Your task to perform on an android device: change timer sound Image 0: 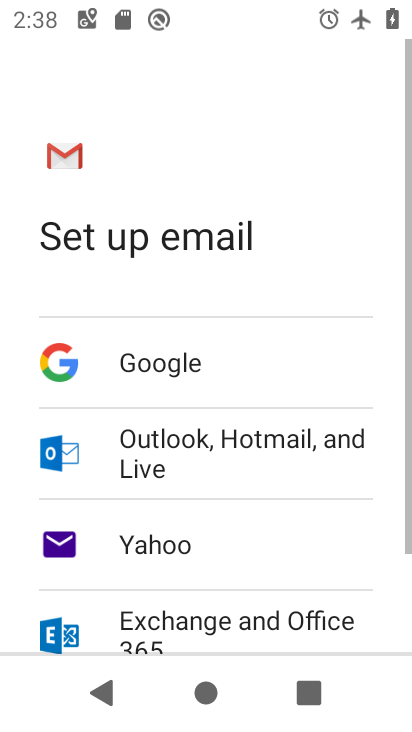
Step 0: press home button
Your task to perform on an android device: change timer sound Image 1: 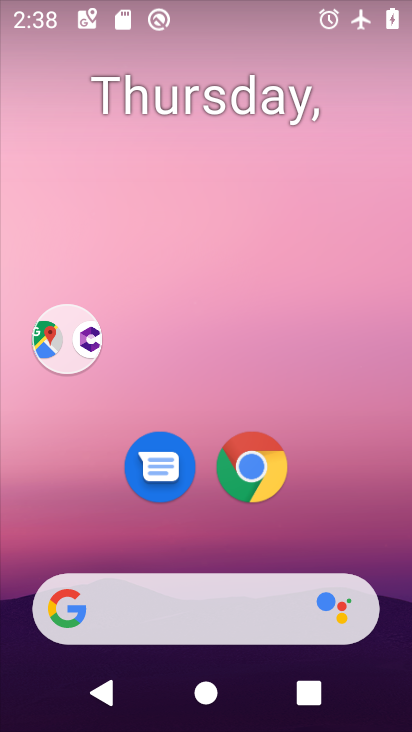
Step 1: drag from (217, 554) to (265, 0)
Your task to perform on an android device: change timer sound Image 2: 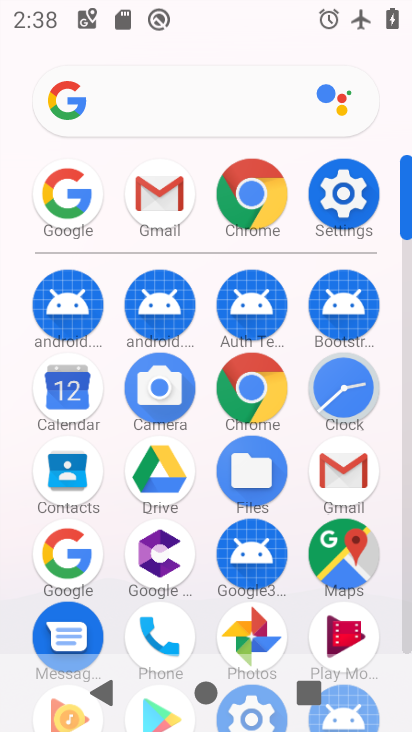
Step 2: click (339, 395)
Your task to perform on an android device: change timer sound Image 3: 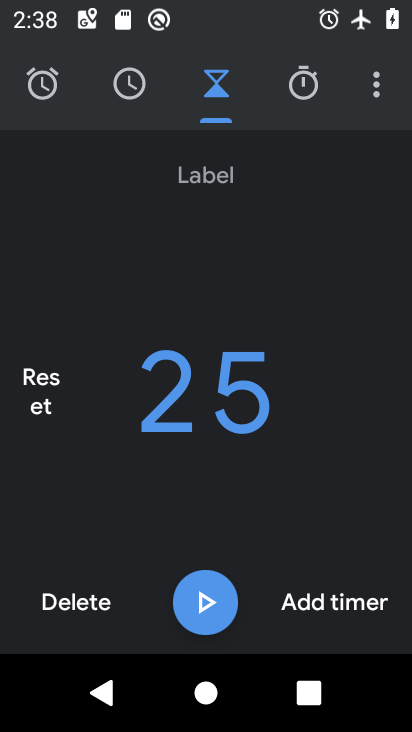
Step 3: click (374, 97)
Your task to perform on an android device: change timer sound Image 4: 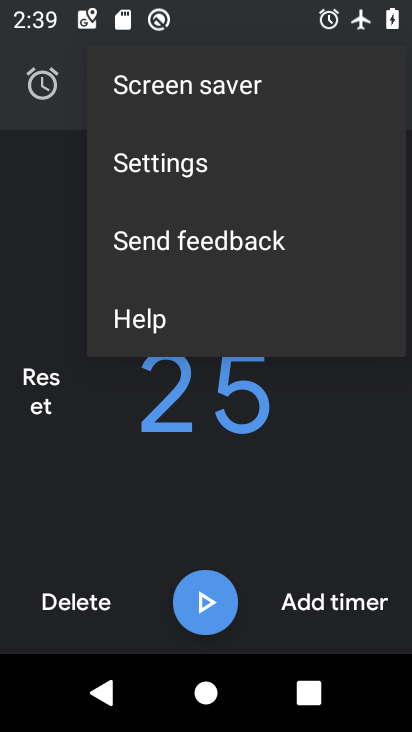
Step 4: click (121, 169)
Your task to perform on an android device: change timer sound Image 5: 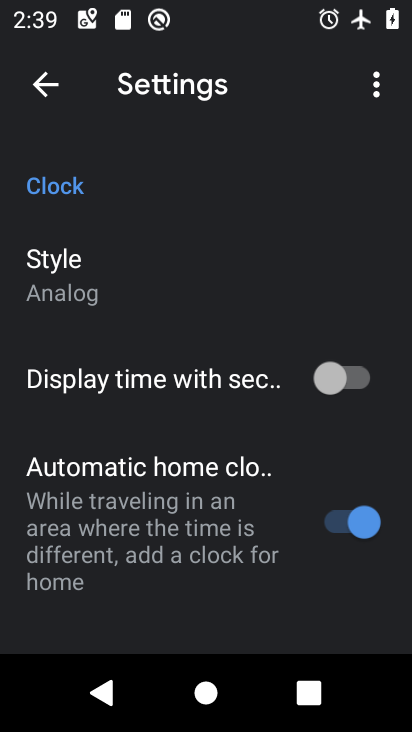
Step 5: drag from (144, 476) to (113, 84)
Your task to perform on an android device: change timer sound Image 6: 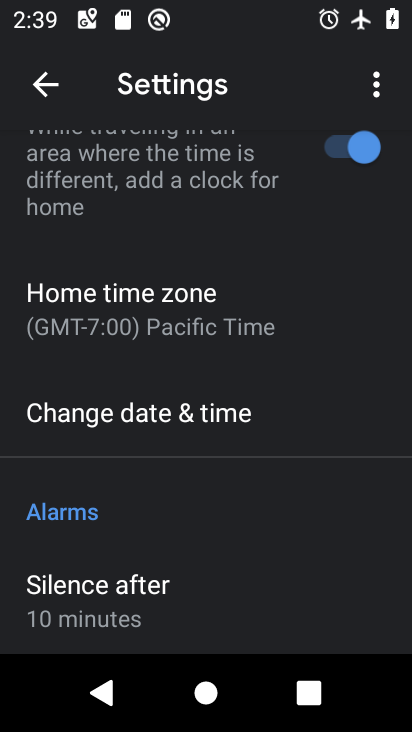
Step 6: drag from (124, 529) to (81, 89)
Your task to perform on an android device: change timer sound Image 7: 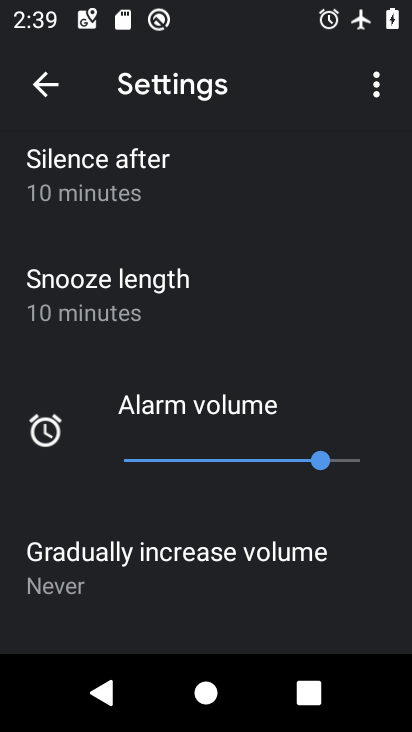
Step 7: drag from (176, 429) to (135, 28)
Your task to perform on an android device: change timer sound Image 8: 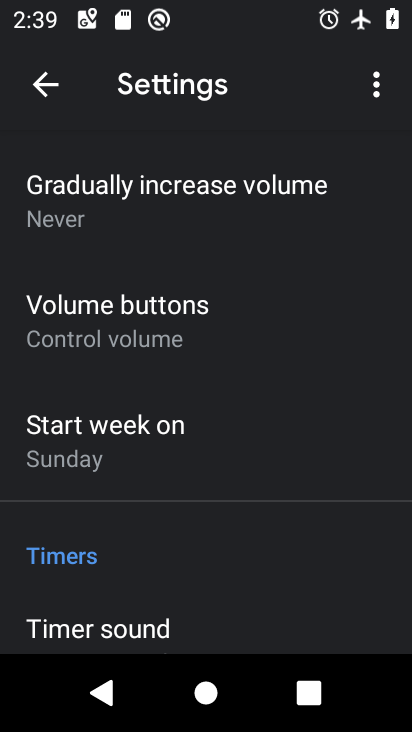
Step 8: click (166, 612)
Your task to perform on an android device: change timer sound Image 9: 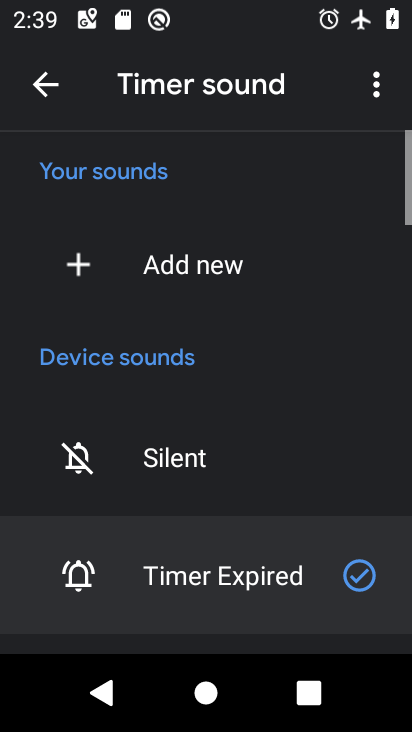
Step 9: click (155, 464)
Your task to perform on an android device: change timer sound Image 10: 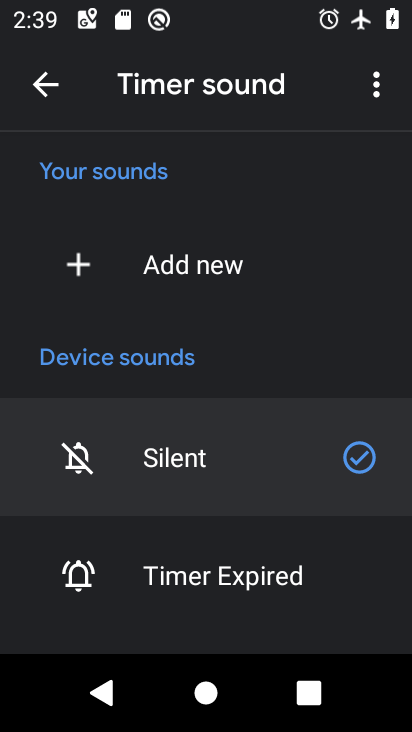
Step 10: task complete